Your task to perform on an android device: show emergency info Image 0: 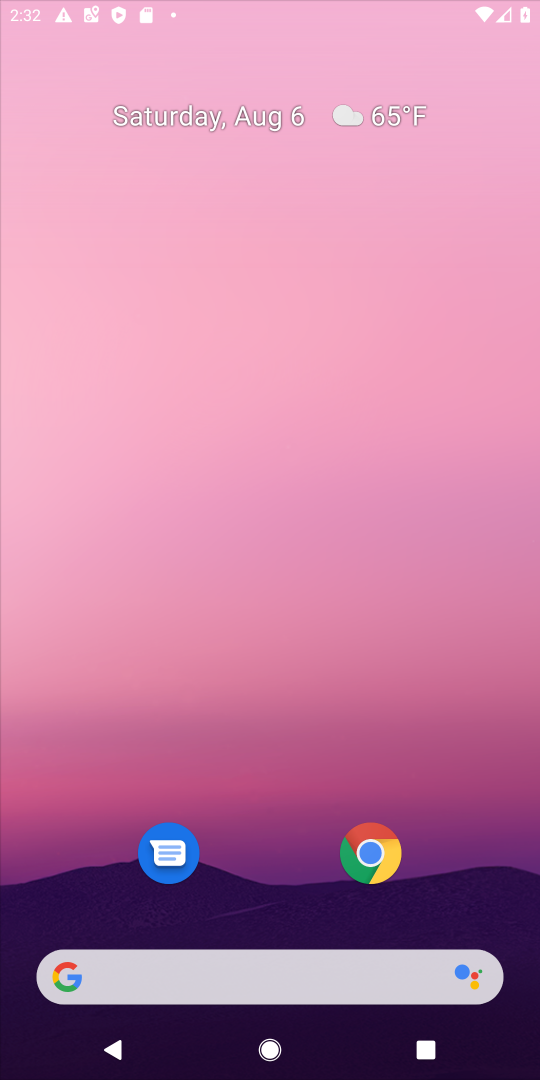
Step 0: press back button
Your task to perform on an android device: show emergency info Image 1: 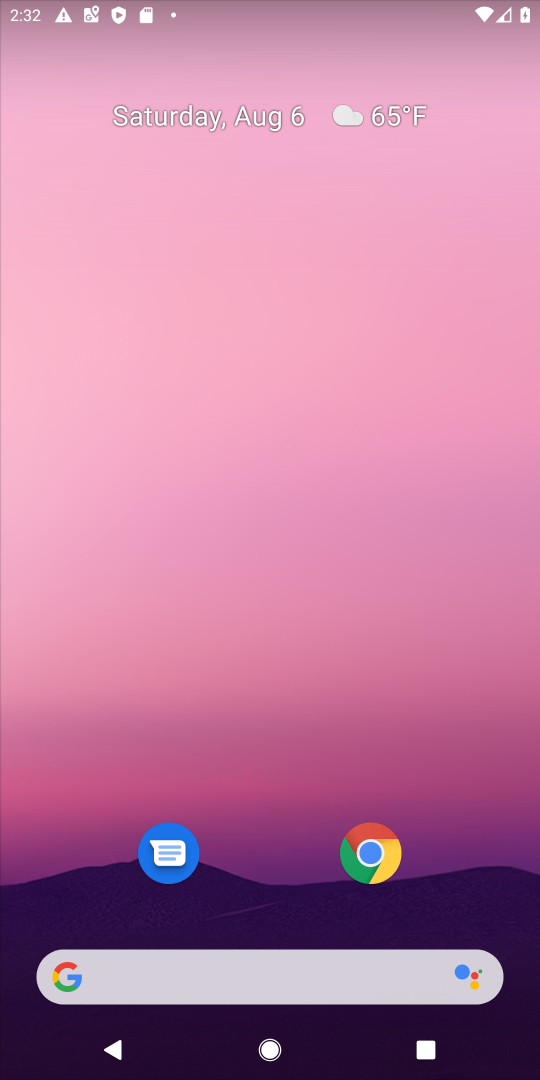
Step 1: drag from (238, 914) to (343, 124)
Your task to perform on an android device: show emergency info Image 2: 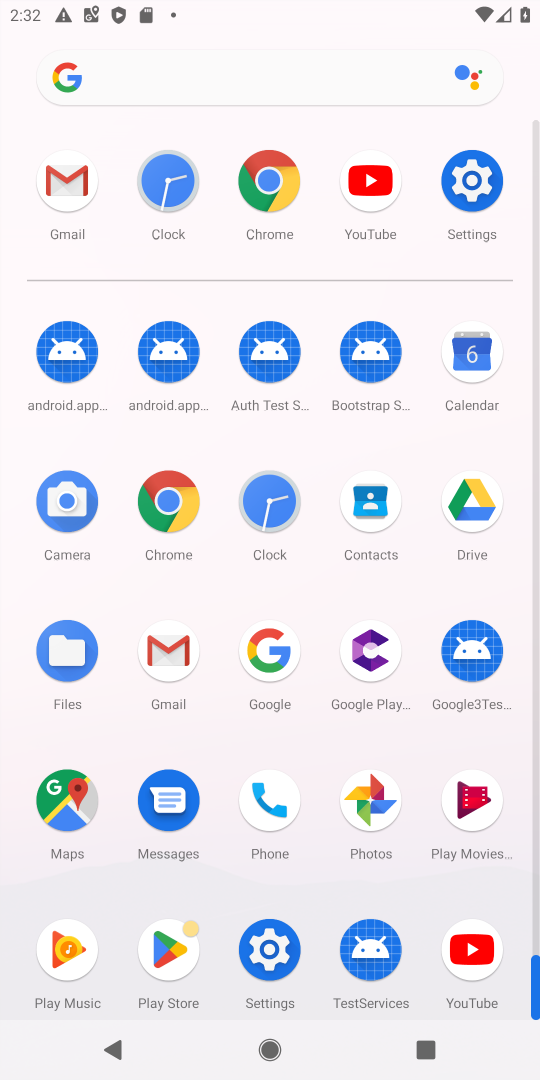
Step 2: click (461, 181)
Your task to perform on an android device: show emergency info Image 3: 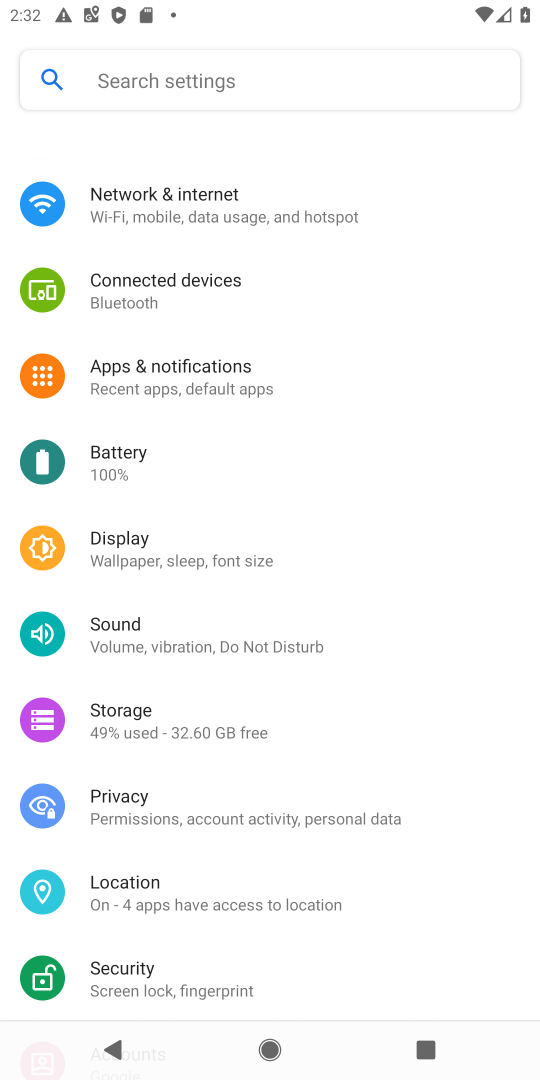
Step 3: drag from (215, 966) to (325, 28)
Your task to perform on an android device: show emergency info Image 4: 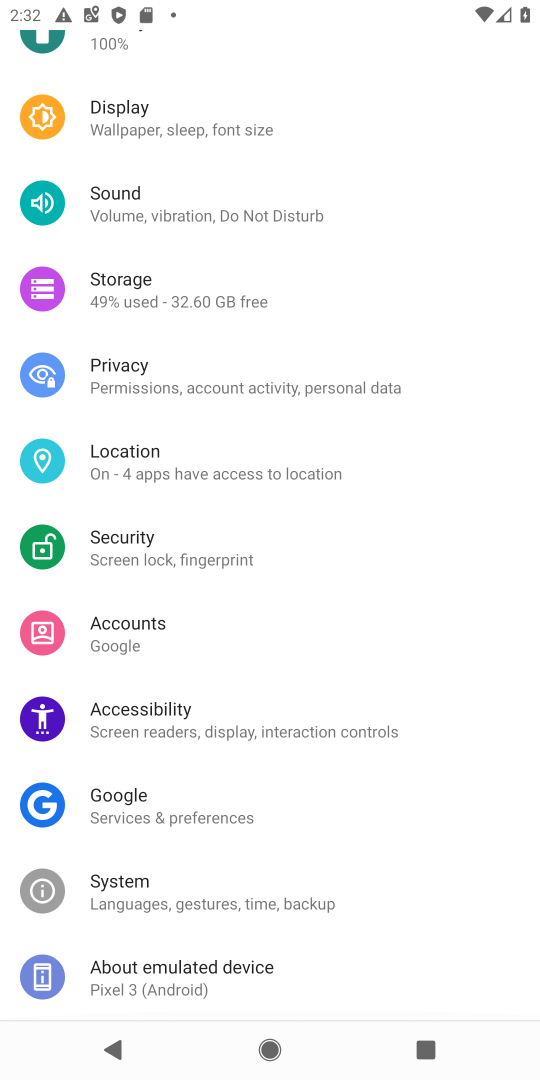
Step 4: drag from (274, 935) to (390, 11)
Your task to perform on an android device: show emergency info Image 5: 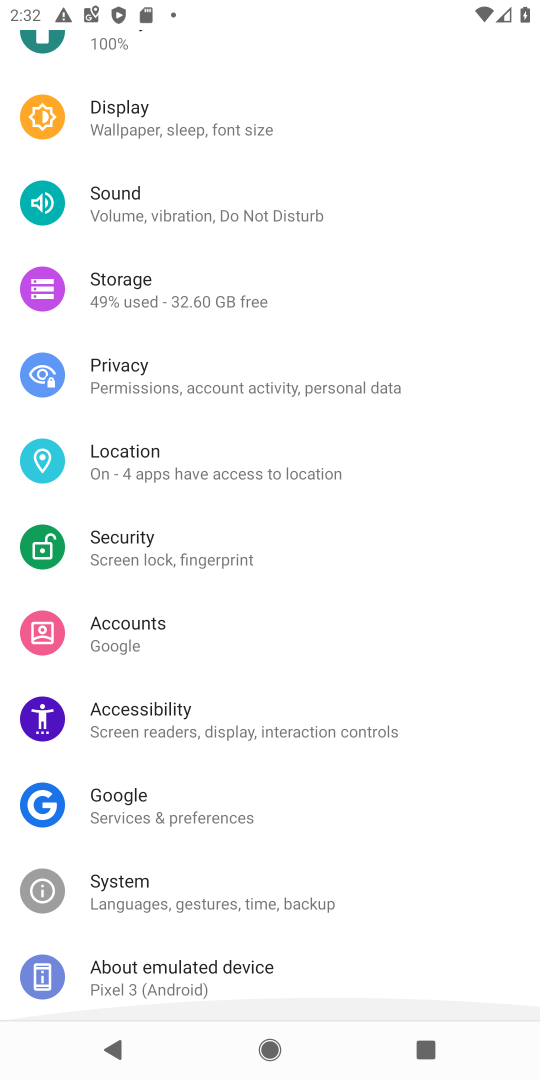
Step 5: click (161, 998)
Your task to perform on an android device: show emergency info Image 6: 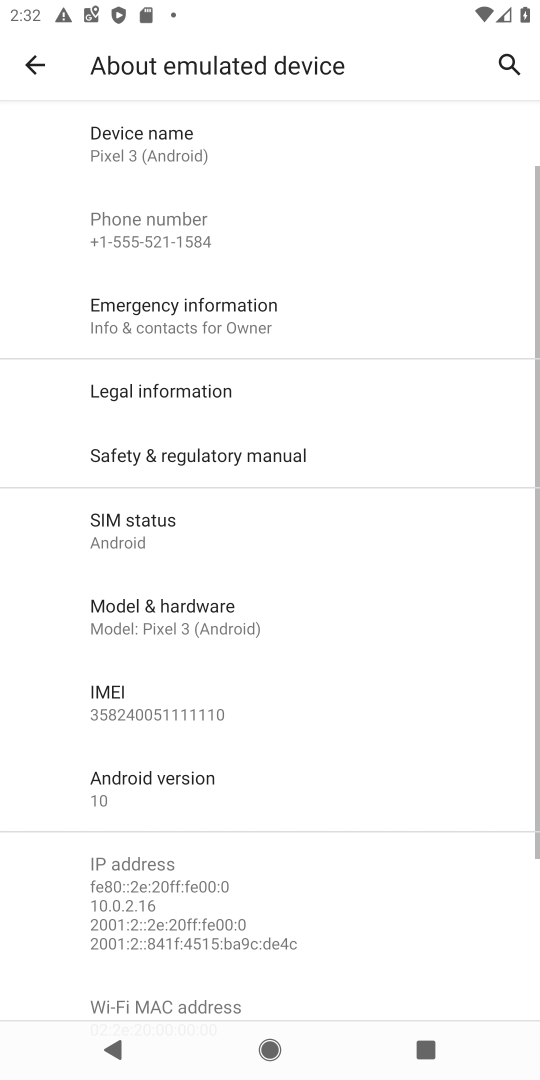
Step 6: click (206, 300)
Your task to perform on an android device: show emergency info Image 7: 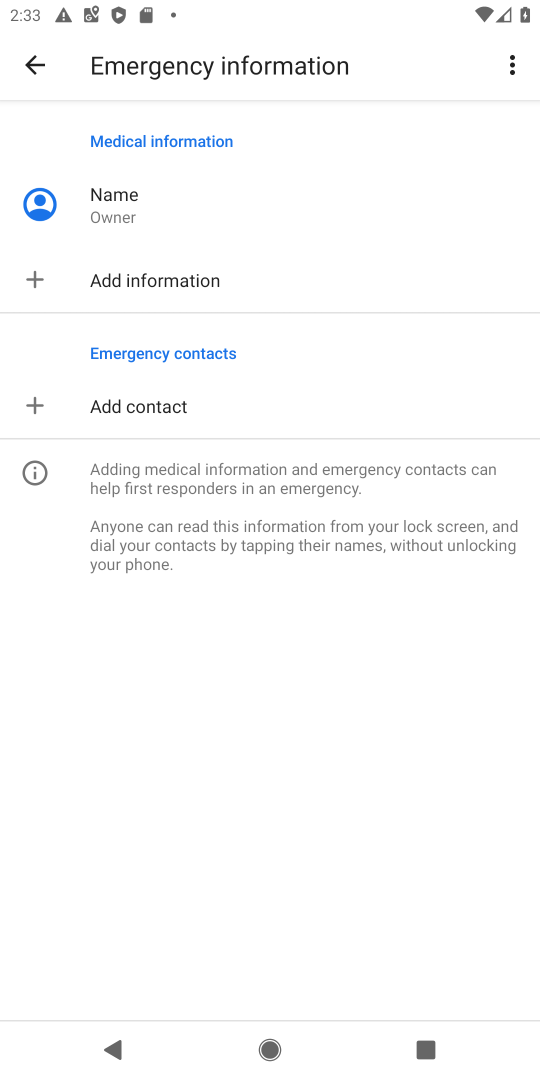
Step 7: task complete